Your task to perform on an android device: open app "Adobe Express: Graphic Design" (install if not already installed) and enter user name: "deliveries@gmail.com" and password: "regimentation" Image 0: 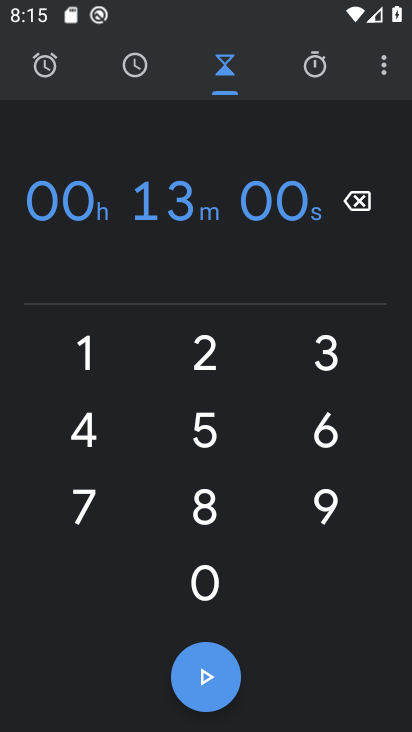
Step 0: press home button
Your task to perform on an android device: open app "Adobe Express: Graphic Design" (install if not already installed) and enter user name: "deliveries@gmail.com" and password: "regimentation" Image 1: 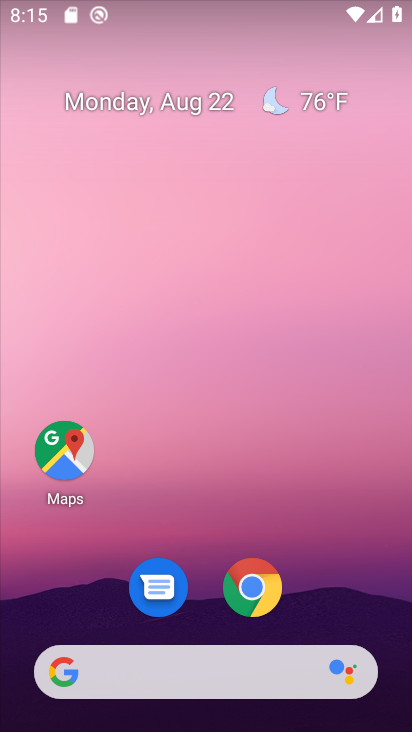
Step 1: drag from (361, 617) to (337, 26)
Your task to perform on an android device: open app "Adobe Express: Graphic Design" (install if not already installed) and enter user name: "deliveries@gmail.com" and password: "regimentation" Image 2: 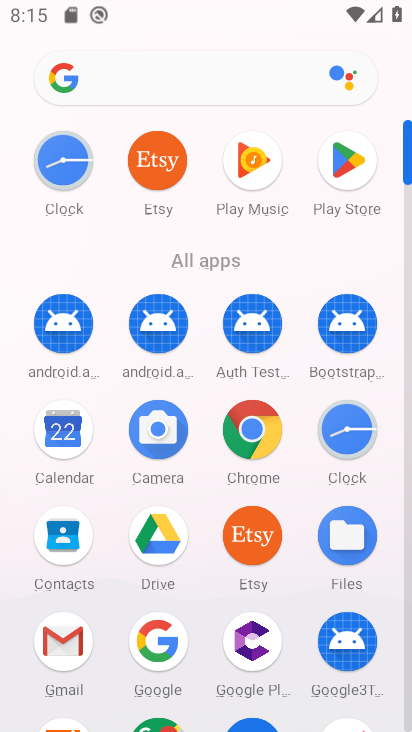
Step 2: drag from (110, 686) to (98, 314)
Your task to perform on an android device: open app "Adobe Express: Graphic Design" (install if not already installed) and enter user name: "deliveries@gmail.com" and password: "regimentation" Image 3: 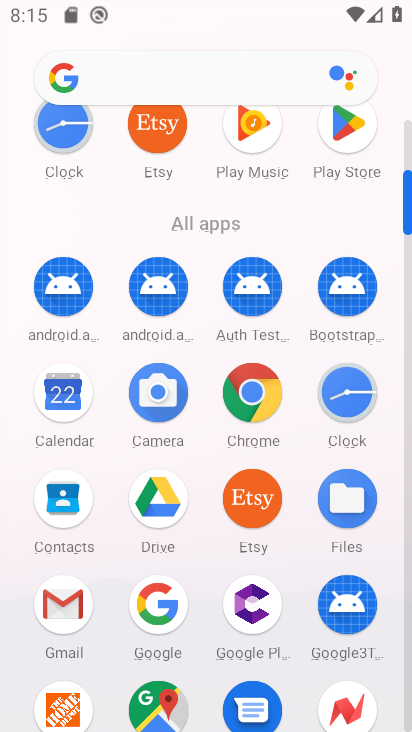
Step 3: drag from (211, 663) to (193, 270)
Your task to perform on an android device: open app "Adobe Express: Graphic Design" (install if not already installed) and enter user name: "deliveries@gmail.com" and password: "regimentation" Image 4: 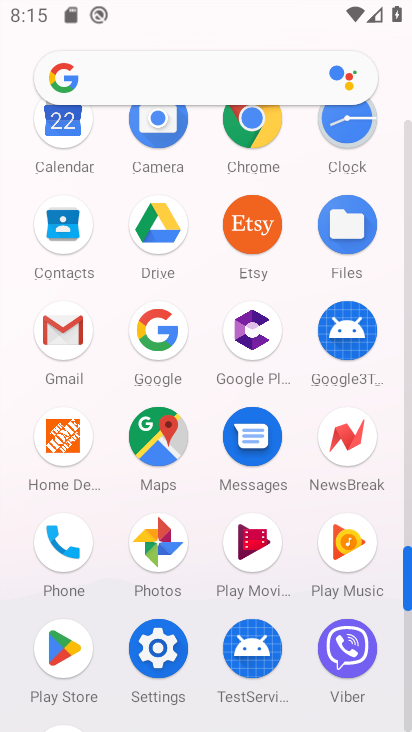
Step 4: click (63, 651)
Your task to perform on an android device: open app "Adobe Express: Graphic Design" (install if not already installed) and enter user name: "deliveries@gmail.com" and password: "regimentation" Image 5: 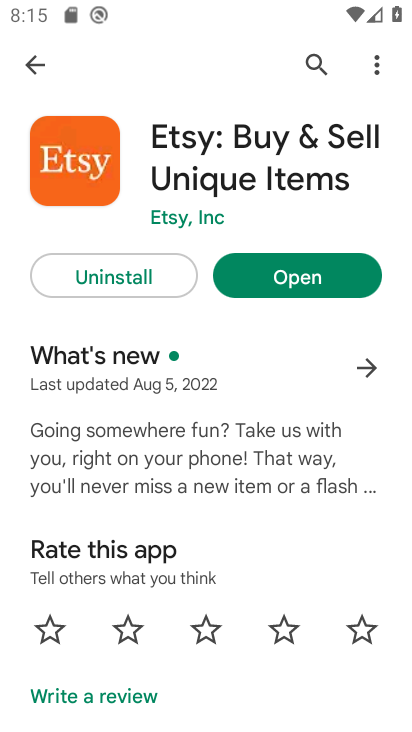
Step 5: click (315, 56)
Your task to perform on an android device: open app "Adobe Express: Graphic Design" (install if not already installed) and enter user name: "deliveries@gmail.com" and password: "regimentation" Image 6: 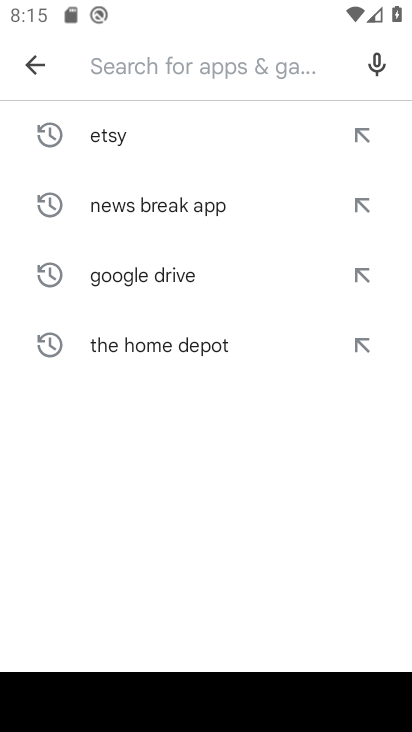
Step 6: type "adobe express"
Your task to perform on an android device: open app "Adobe Express: Graphic Design" (install if not already installed) and enter user name: "deliveries@gmail.com" and password: "regimentation" Image 7: 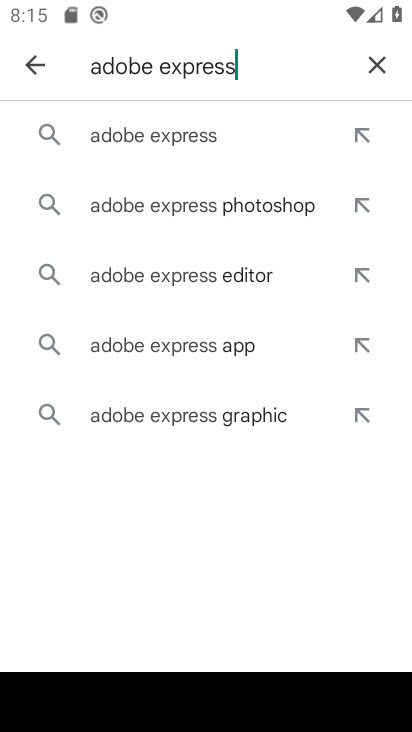
Step 7: click (175, 143)
Your task to perform on an android device: open app "Adobe Express: Graphic Design" (install if not already installed) and enter user name: "deliveries@gmail.com" and password: "regimentation" Image 8: 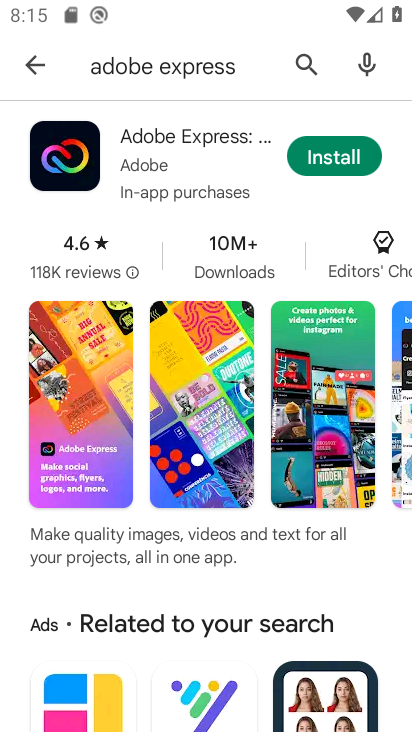
Step 8: click (162, 138)
Your task to perform on an android device: open app "Adobe Express: Graphic Design" (install if not already installed) and enter user name: "deliveries@gmail.com" and password: "regimentation" Image 9: 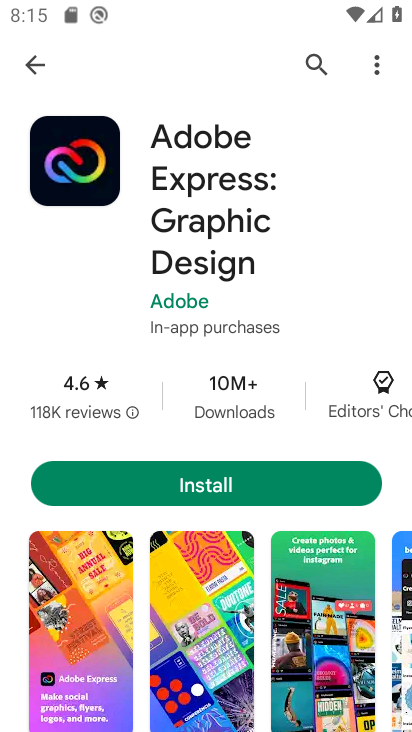
Step 9: click (196, 486)
Your task to perform on an android device: open app "Adobe Express: Graphic Design" (install if not already installed) and enter user name: "deliveries@gmail.com" and password: "regimentation" Image 10: 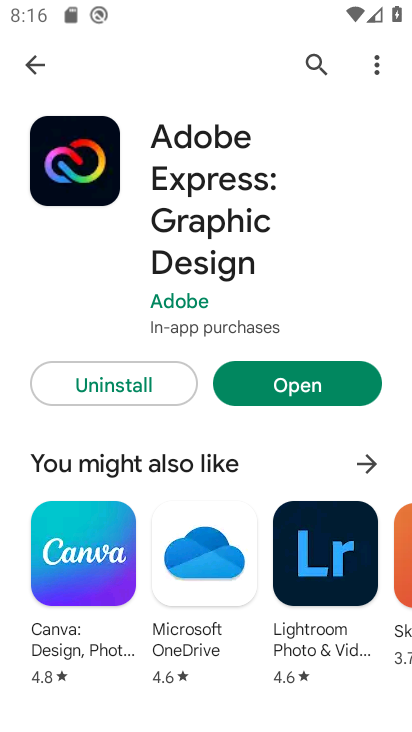
Step 10: click (298, 384)
Your task to perform on an android device: open app "Adobe Express: Graphic Design" (install if not already installed) and enter user name: "deliveries@gmail.com" and password: "regimentation" Image 11: 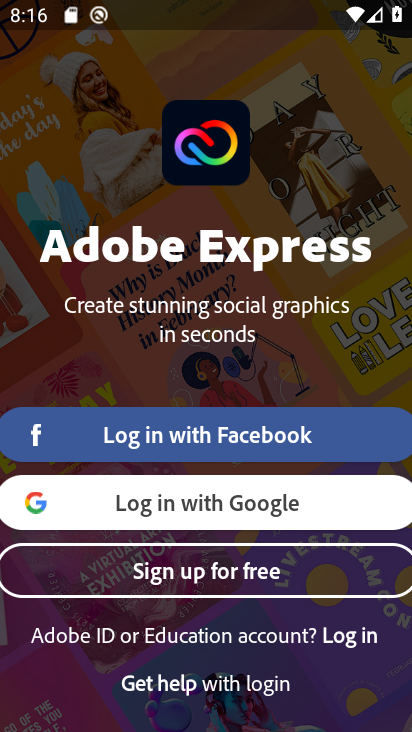
Step 11: click (345, 636)
Your task to perform on an android device: open app "Adobe Express: Graphic Design" (install if not already installed) and enter user name: "deliveries@gmail.com" and password: "regimentation" Image 12: 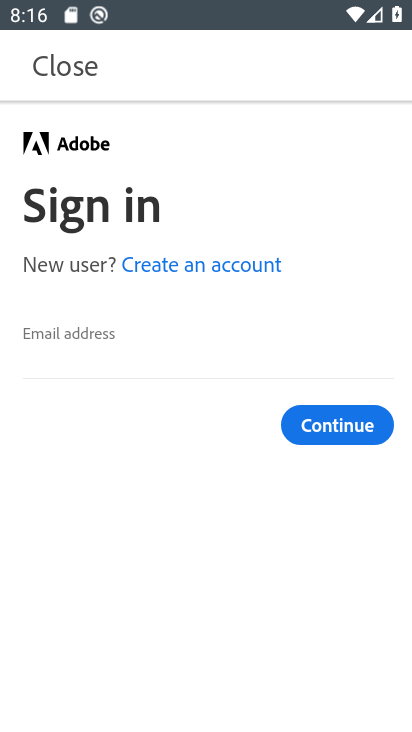
Step 12: click (60, 357)
Your task to perform on an android device: open app "Adobe Express: Graphic Design" (install if not already installed) and enter user name: "deliveries@gmail.com" and password: "regimentation" Image 13: 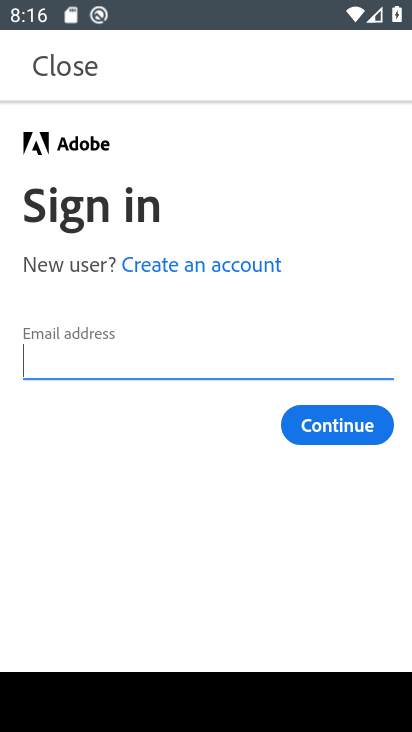
Step 13: type "deliveries@gmail.com"
Your task to perform on an android device: open app "Adobe Express: Graphic Design" (install if not already installed) and enter user name: "deliveries@gmail.com" and password: "regimentation" Image 14: 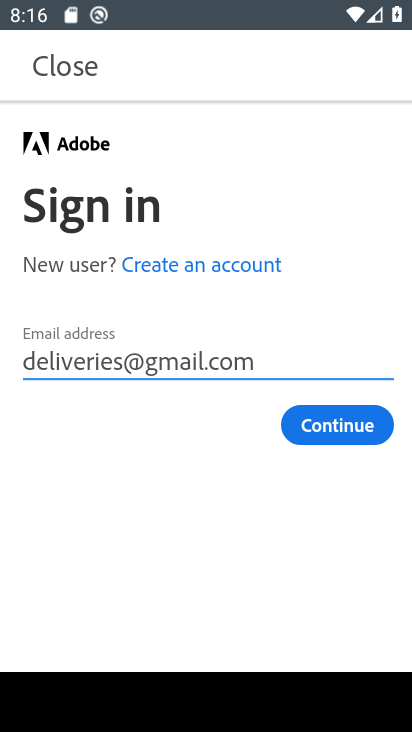
Step 14: click (330, 426)
Your task to perform on an android device: open app "Adobe Express: Graphic Design" (install if not already installed) and enter user name: "deliveries@gmail.com" and password: "regimentation" Image 15: 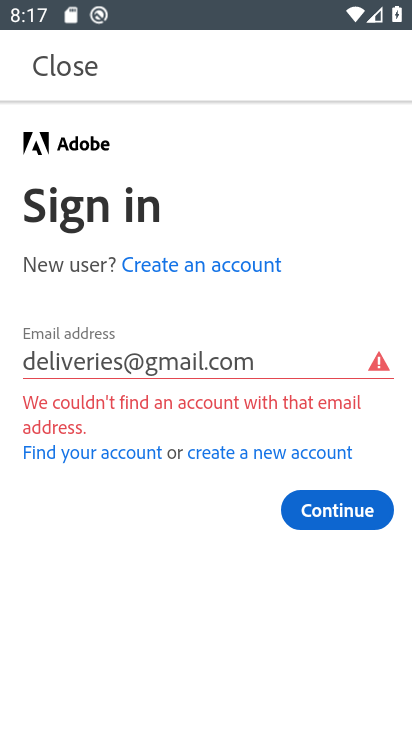
Step 15: task complete